Your task to perform on an android device: toggle data saver in the chrome app Image 0: 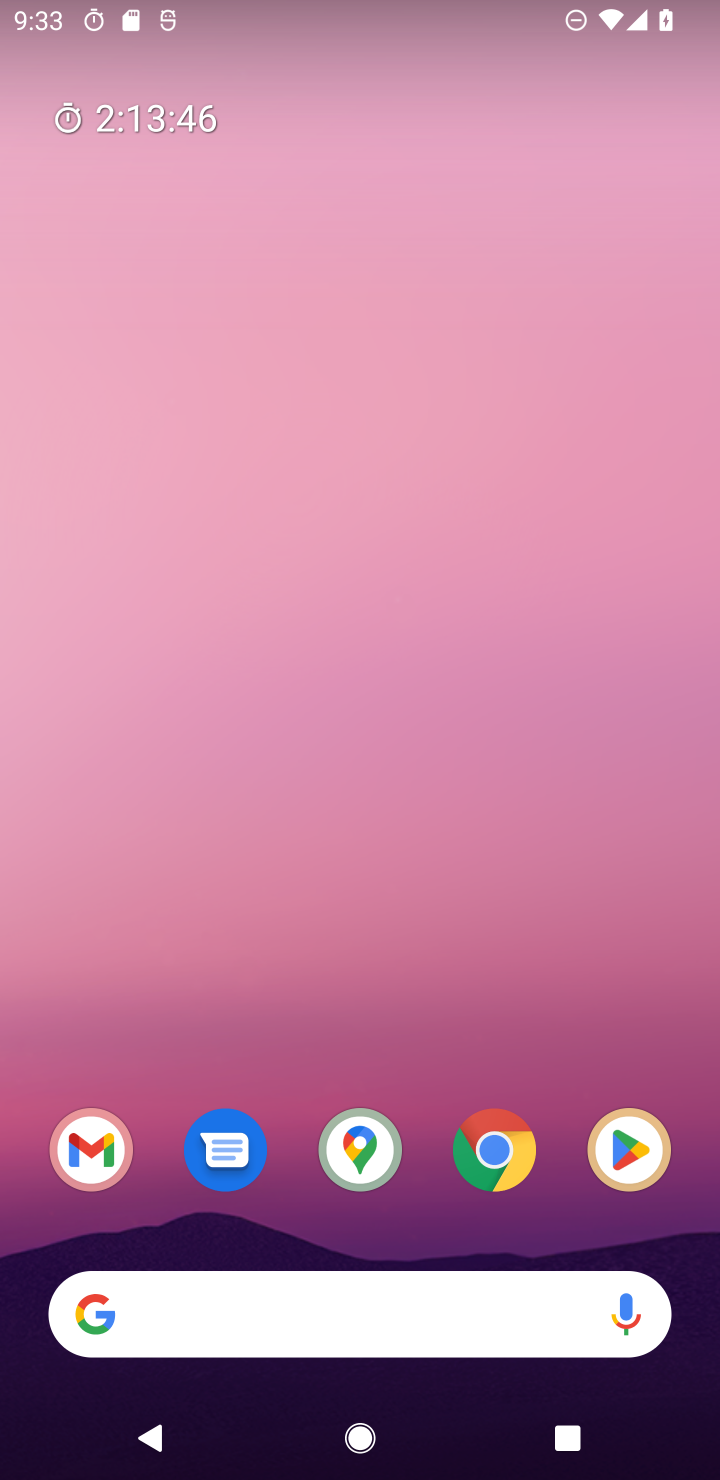
Step 0: drag from (281, 1112) to (267, 0)
Your task to perform on an android device: toggle data saver in the chrome app Image 1: 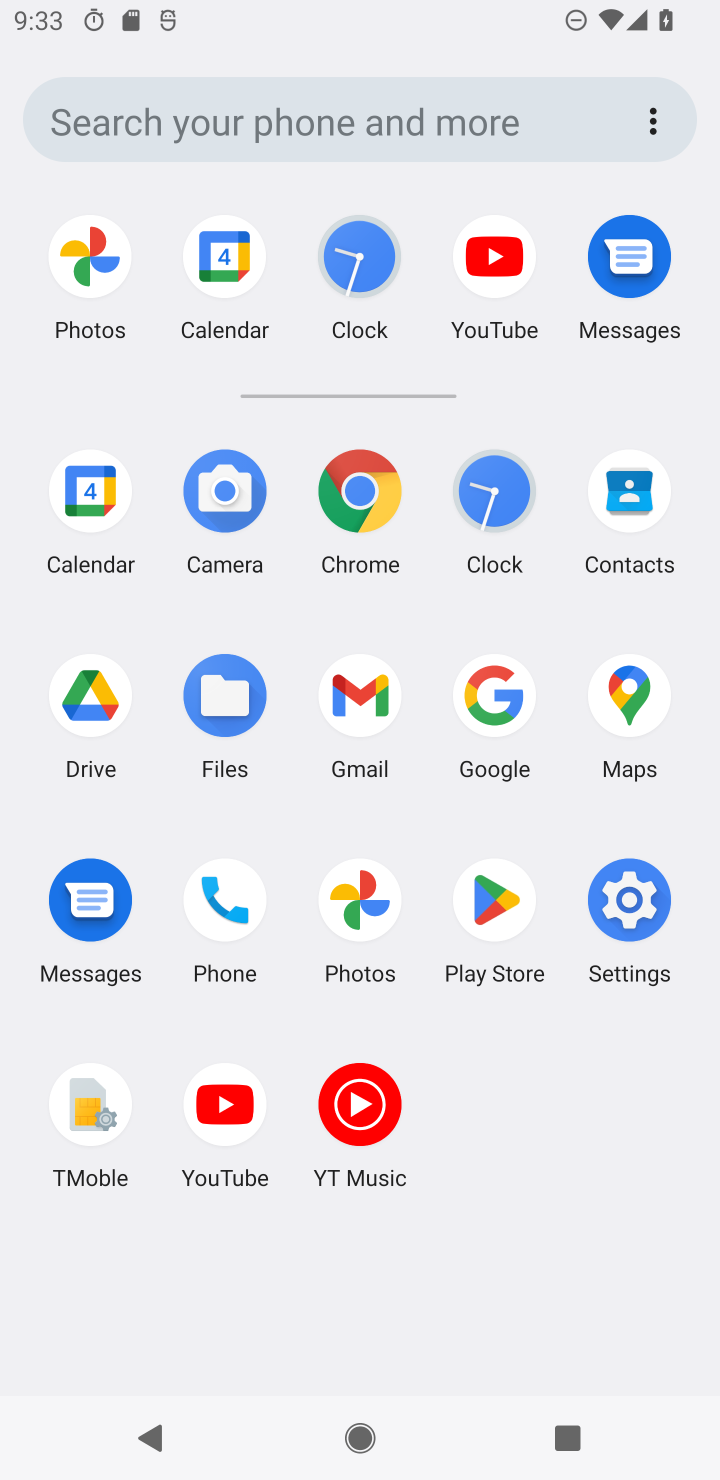
Step 1: click (369, 500)
Your task to perform on an android device: toggle data saver in the chrome app Image 2: 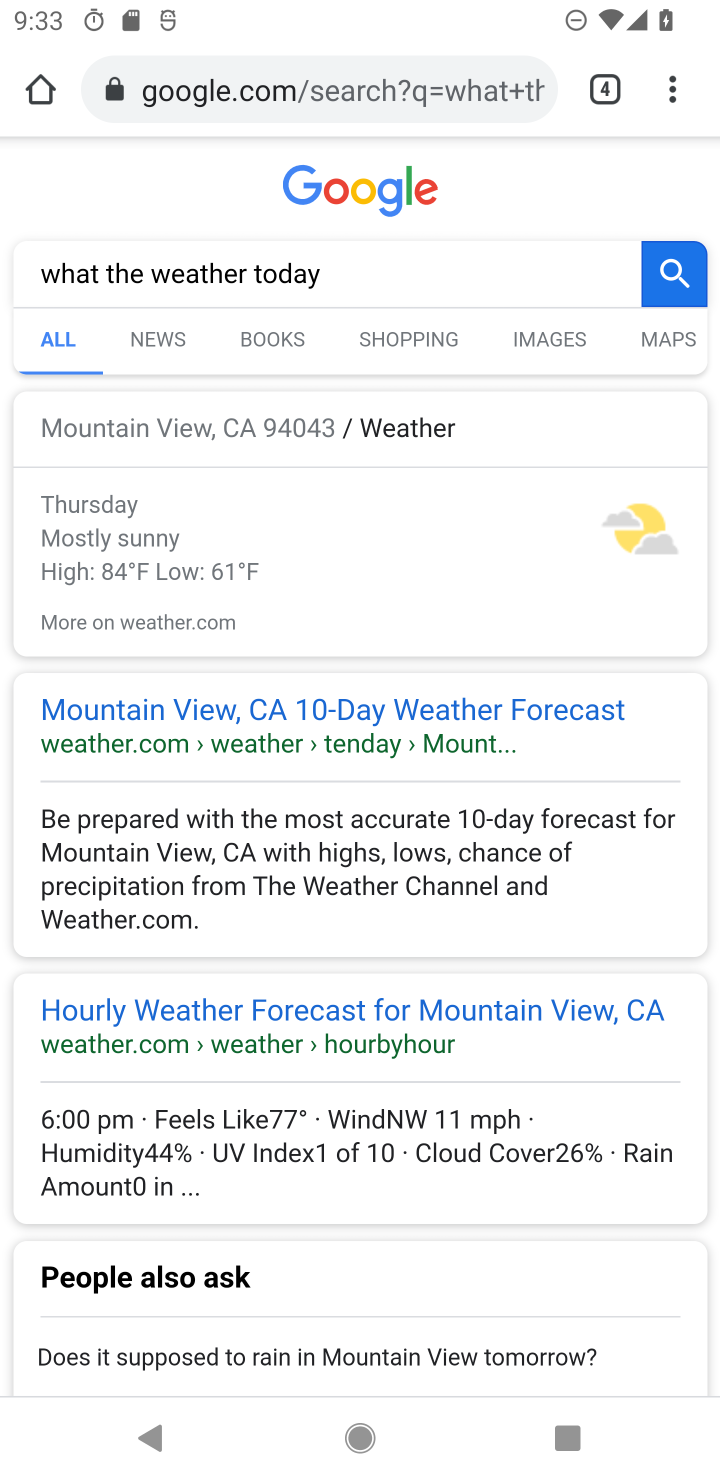
Step 2: drag from (675, 77) to (340, 1152)
Your task to perform on an android device: toggle data saver in the chrome app Image 3: 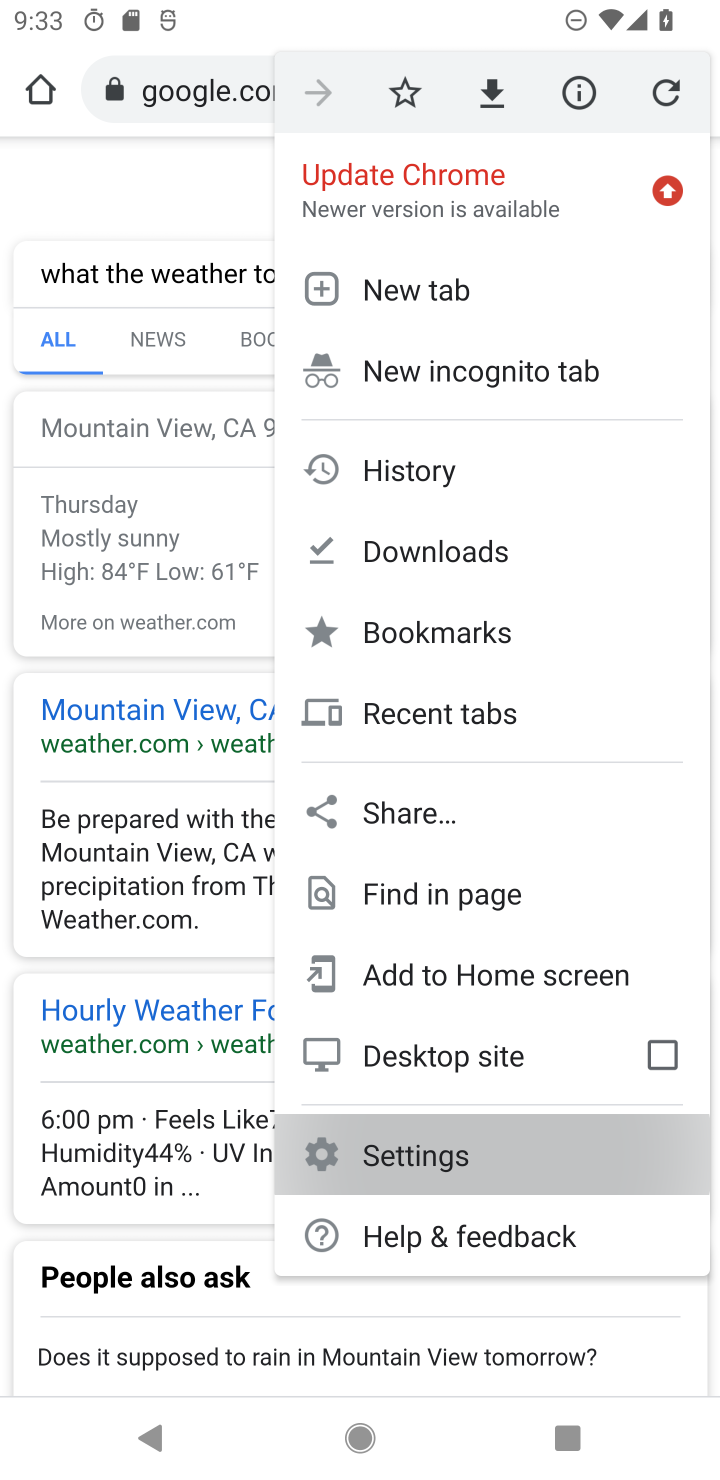
Step 3: click (359, 1143)
Your task to perform on an android device: toggle data saver in the chrome app Image 4: 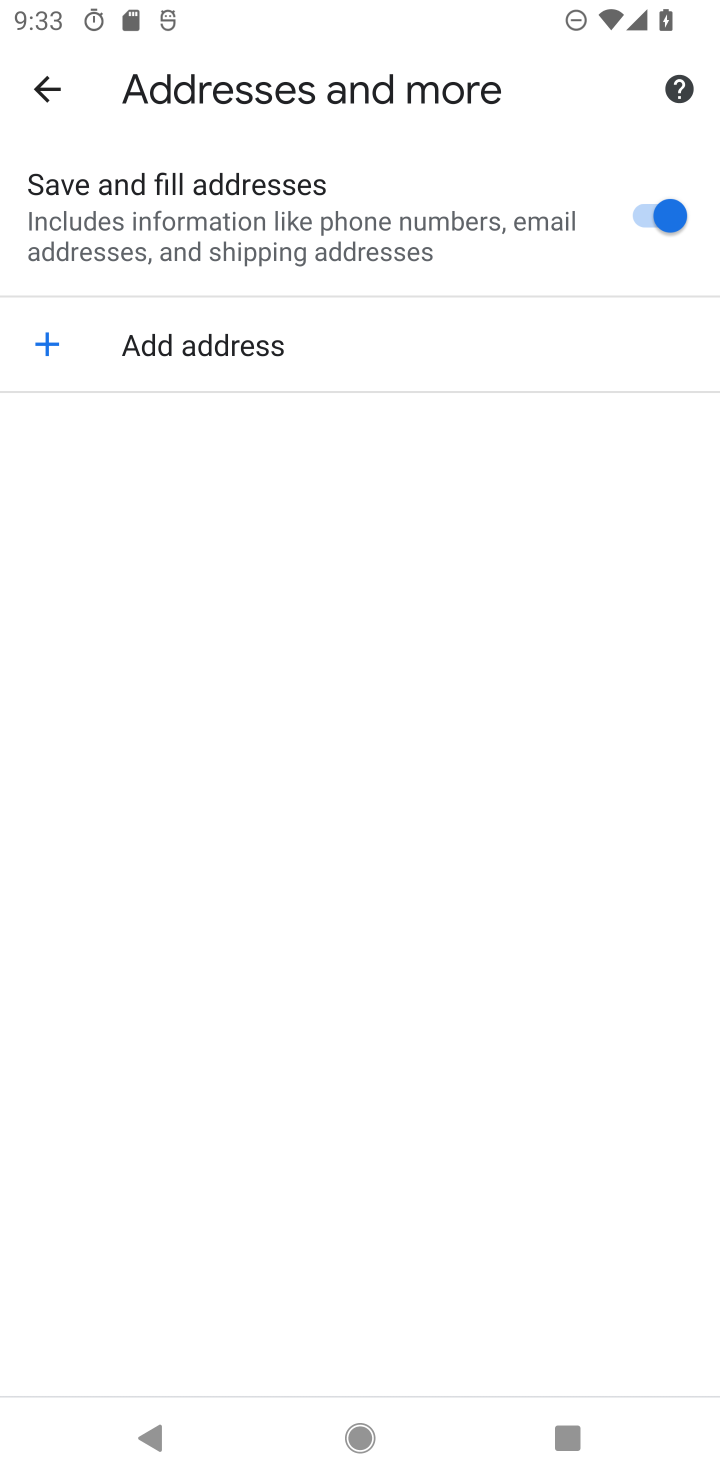
Step 4: press back button
Your task to perform on an android device: toggle data saver in the chrome app Image 5: 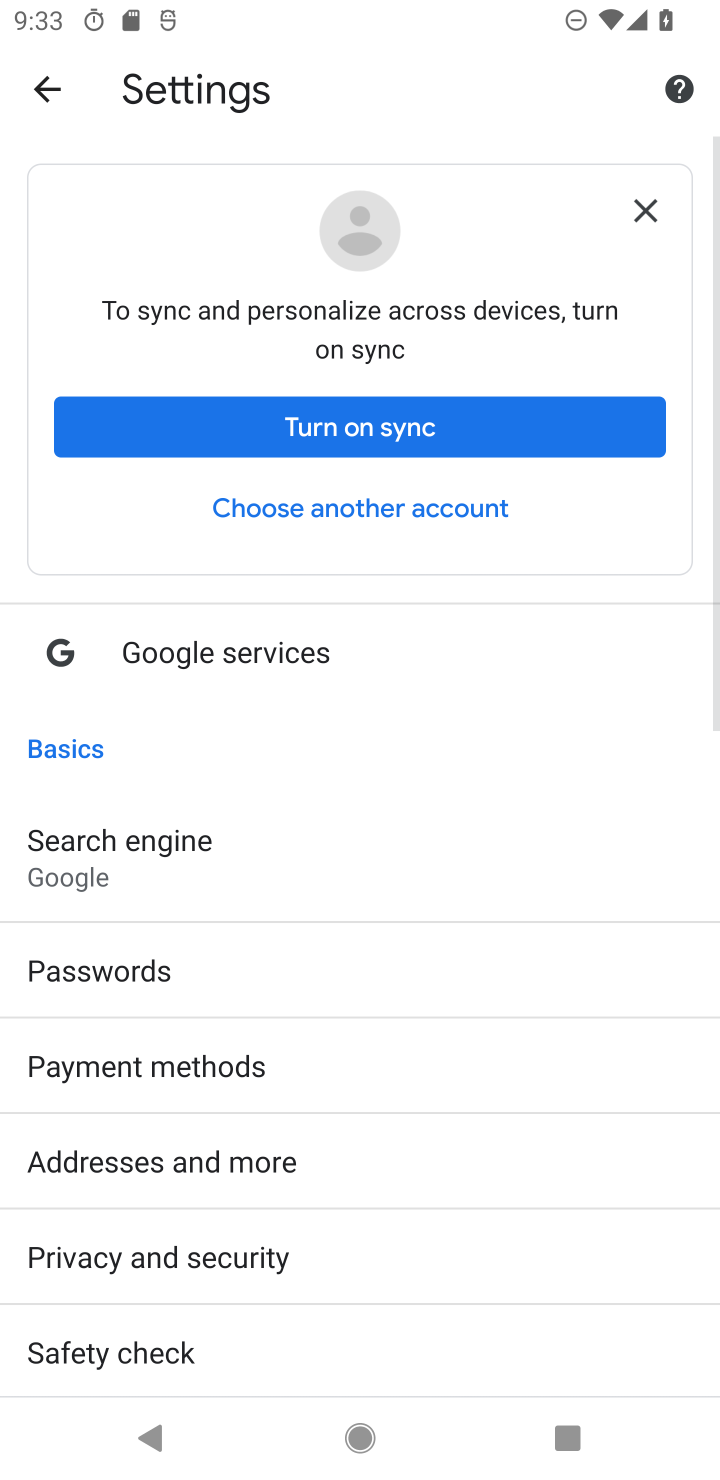
Step 5: drag from (418, 1252) to (494, 43)
Your task to perform on an android device: toggle data saver in the chrome app Image 6: 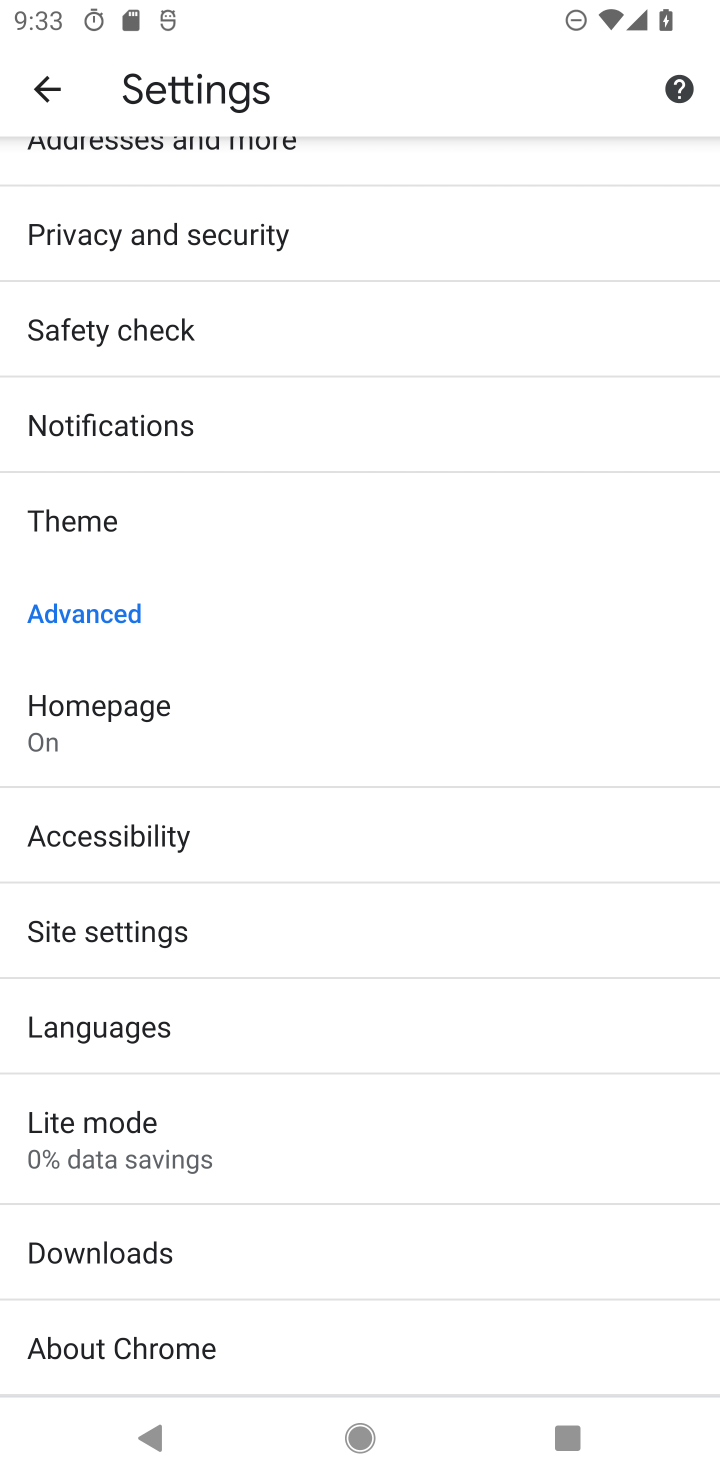
Step 6: click (171, 1136)
Your task to perform on an android device: toggle data saver in the chrome app Image 7: 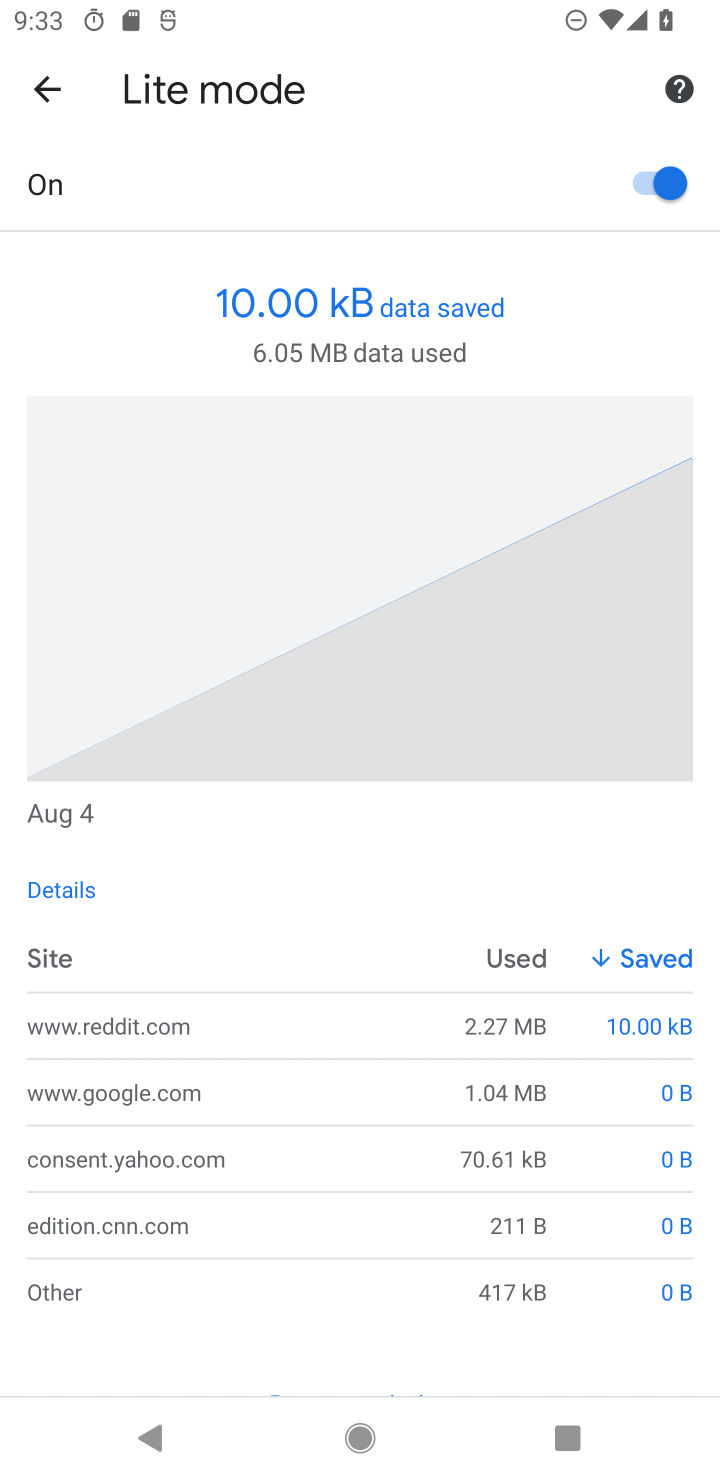
Step 7: click (653, 170)
Your task to perform on an android device: toggle data saver in the chrome app Image 8: 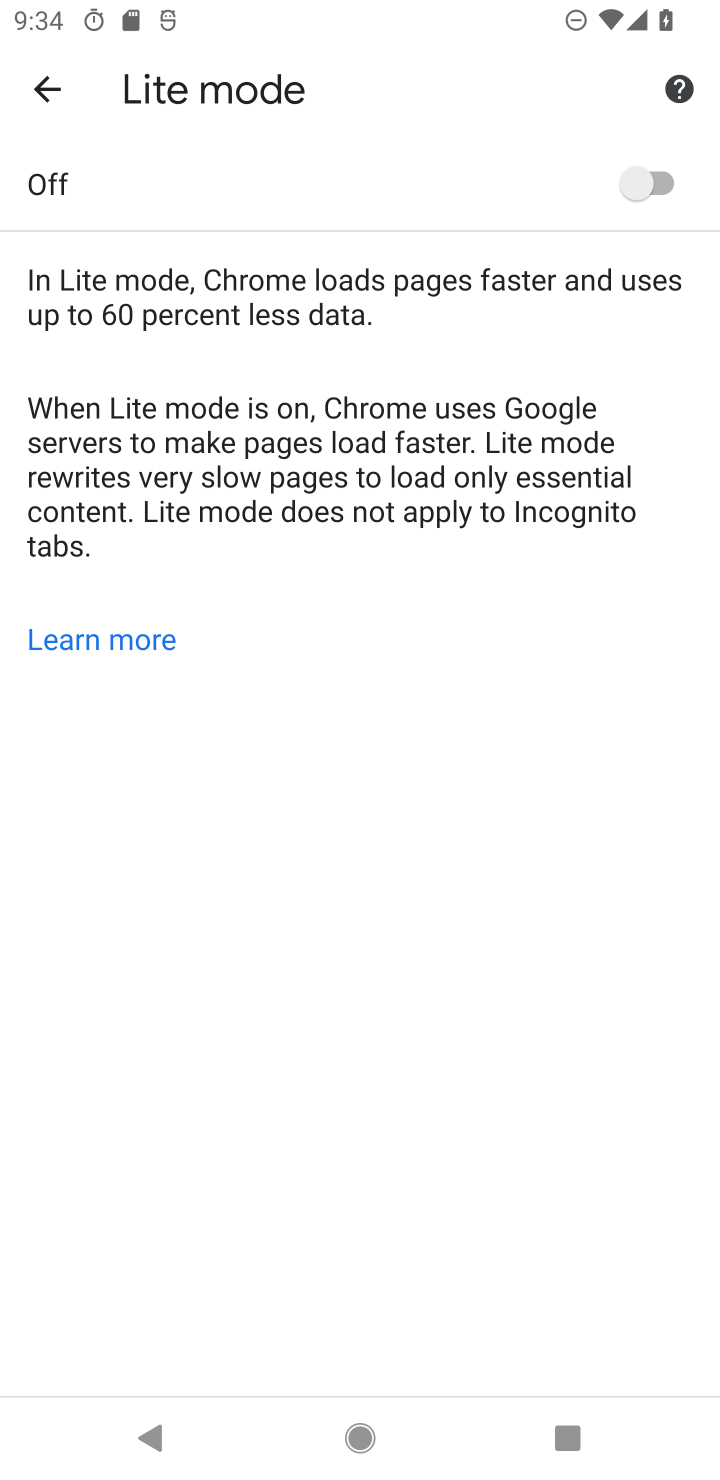
Step 8: task complete